Your task to perform on an android device: toggle wifi Image 0: 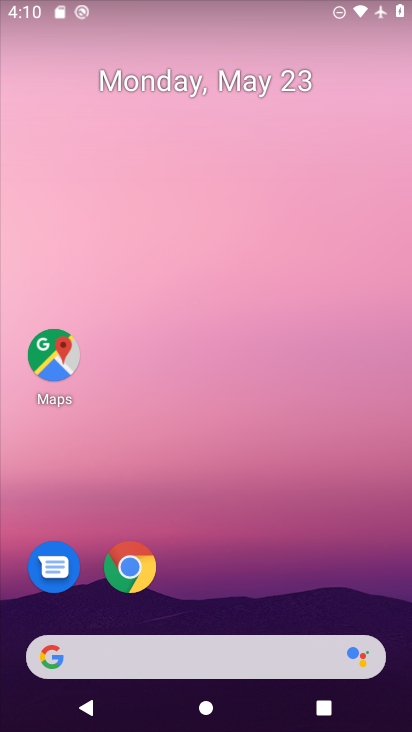
Step 0: drag from (394, 609) to (342, 64)
Your task to perform on an android device: toggle wifi Image 1: 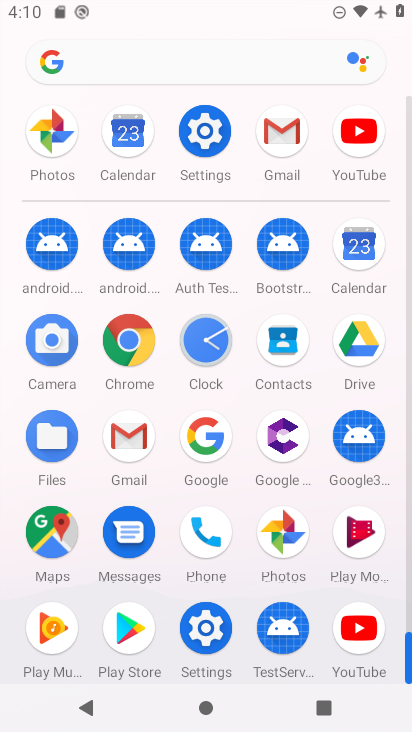
Step 1: click (205, 627)
Your task to perform on an android device: toggle wifi Image 2: 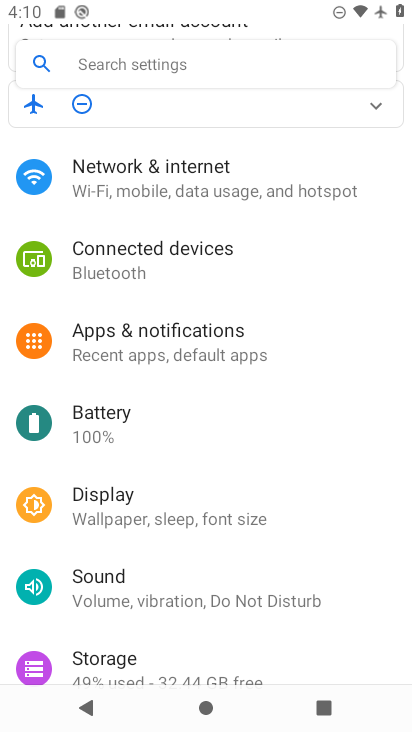
Step 2: click (188, 159)
Your task to perform on an android device: toggle wifi Image 3: 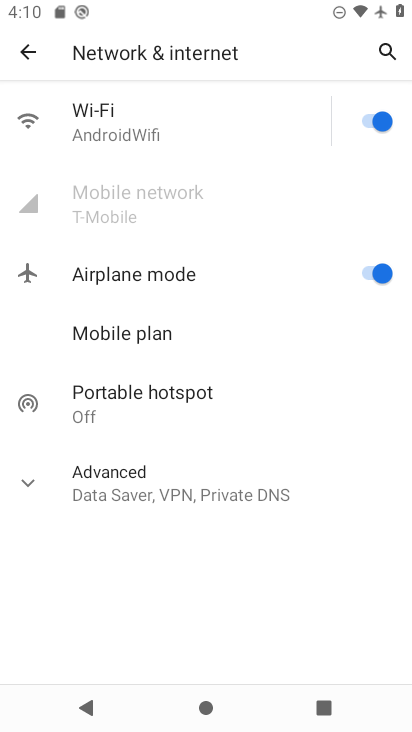
Step 3: click (366, 124)
Your task to perform on an android device: toggle wifi Image 4: 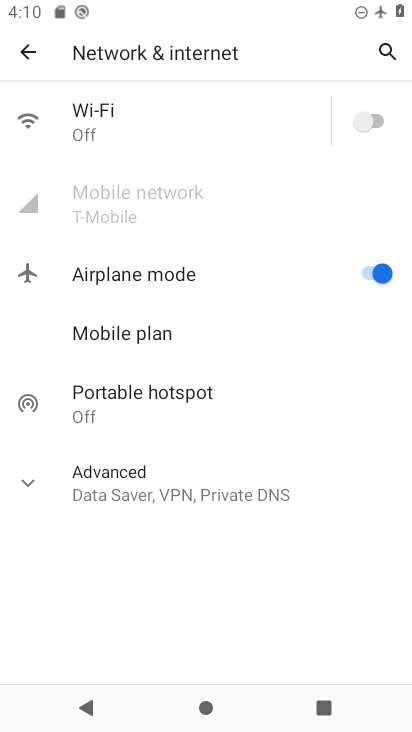
Step 4: task complete